Your task to perform on an android device: open app "Adobe Express: Graphic Design" (install if not already installed) and enter user name: "deliveries@gmail.com" and password: "regimentation" Image 0: 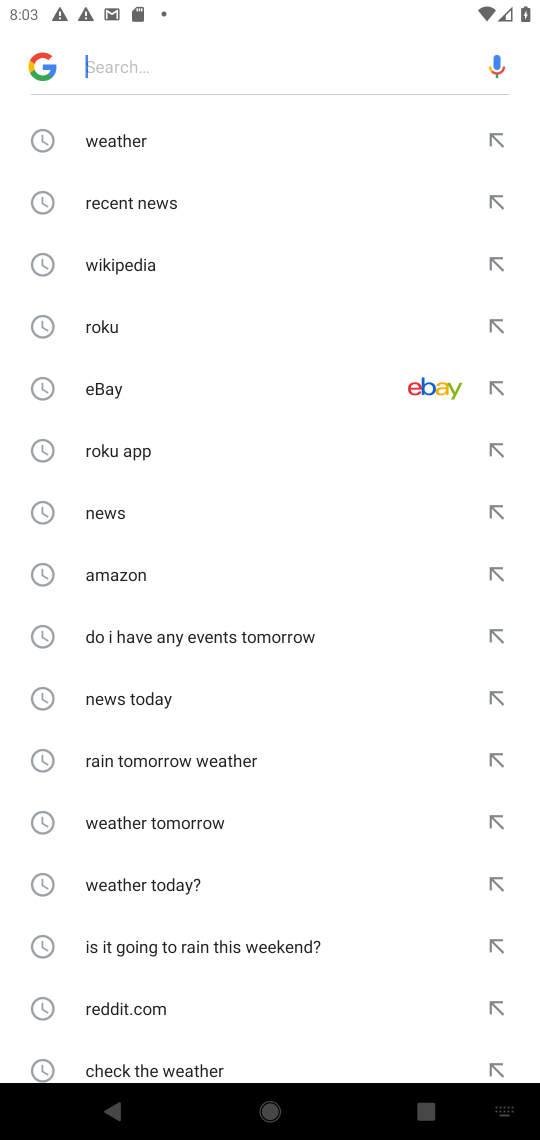
Step 0: press home button
Your task to perform on an android device: open app "Adobe Express: Graphic Design" (install if not already installed) and enter user name: "deliveries@gmail.com" and password: "regimentation" Image 1: 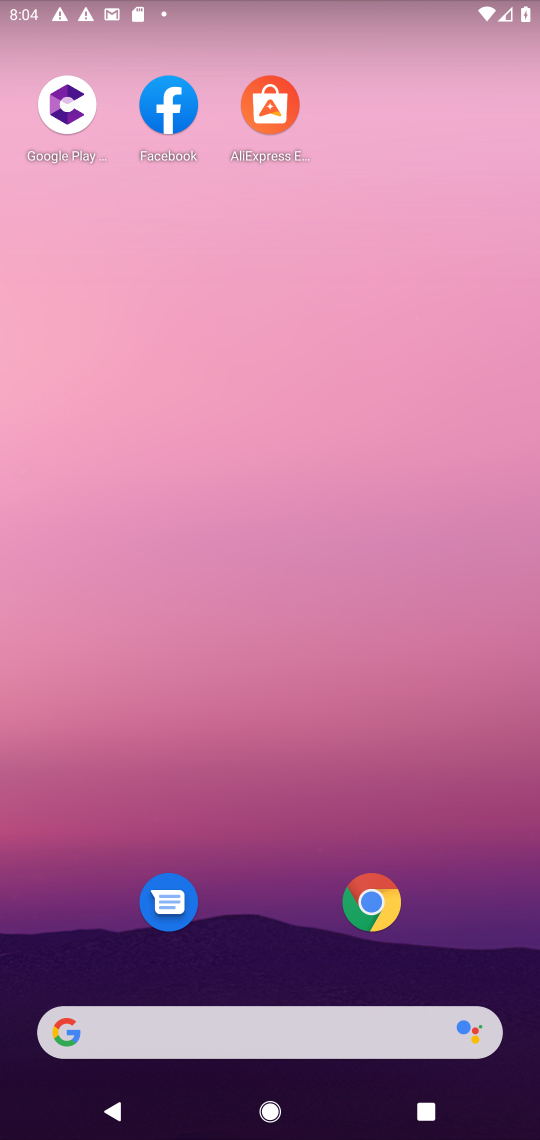
Step 1: drag from (308, 477) to (315, 287)
Your task to perform on an android device: open app "Adobe Express: Graphic Design" (install if not already installed) and enter user name: "deliveries@gmail.com" and password: "regimentation" Image 2: 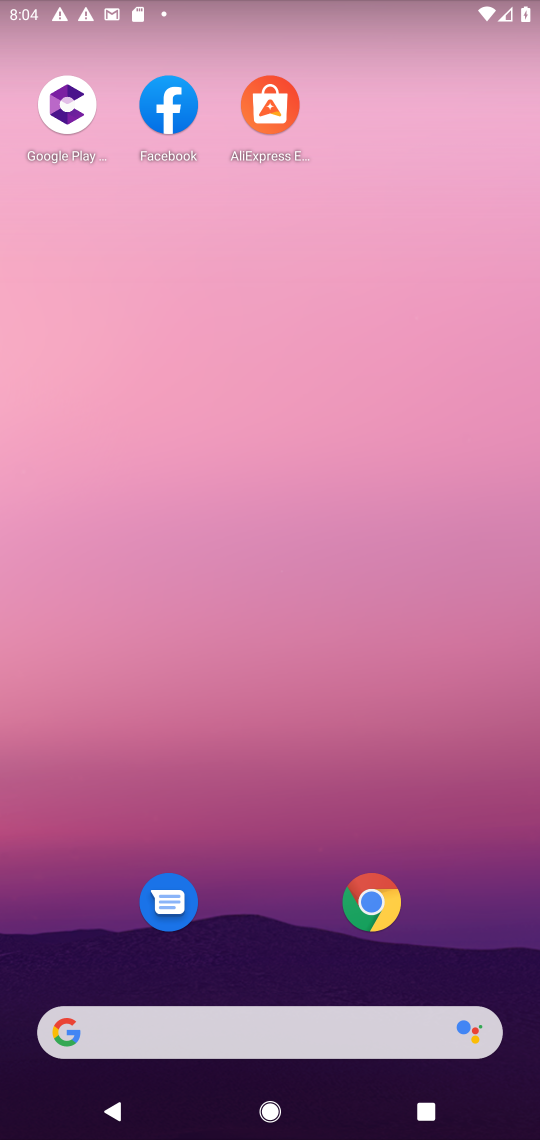
Step 2: drag from (272, 1046) to (242, 234)
Your task to perform on an android device: open app "Adobe Express: Graphic Design" (install if not already installed) and enter user name: "deliveries@gmail.com" and password: "regimentation" Image 3: 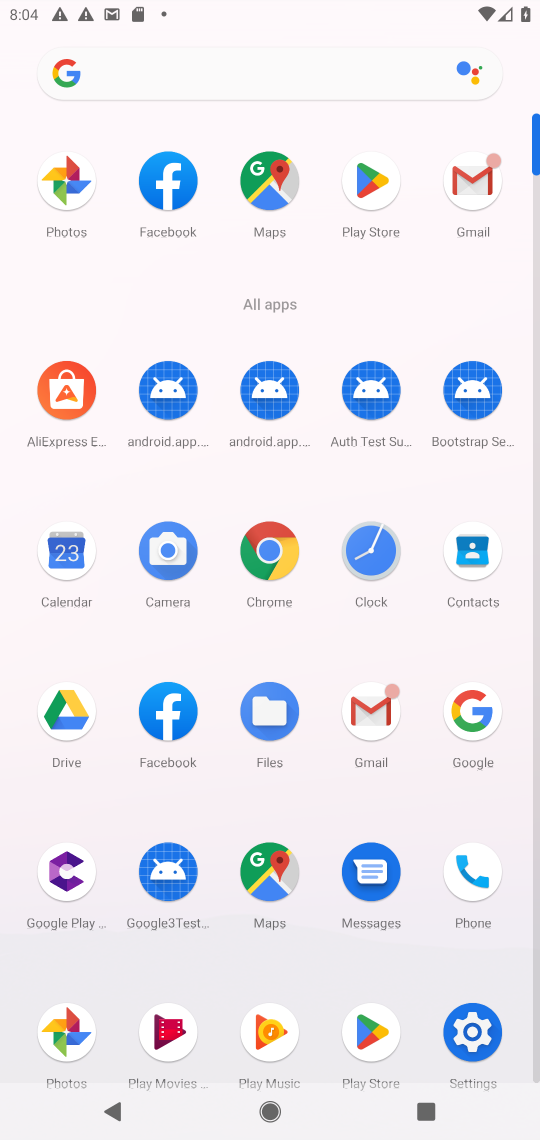
Step 3: click (373, 214)
Your task to perform on an android device: open app "Adobe Express: Graphic Design" (install if not already installed) and enter user name: "deliveries@gmail.com" and password: "regimentation" Image 4: 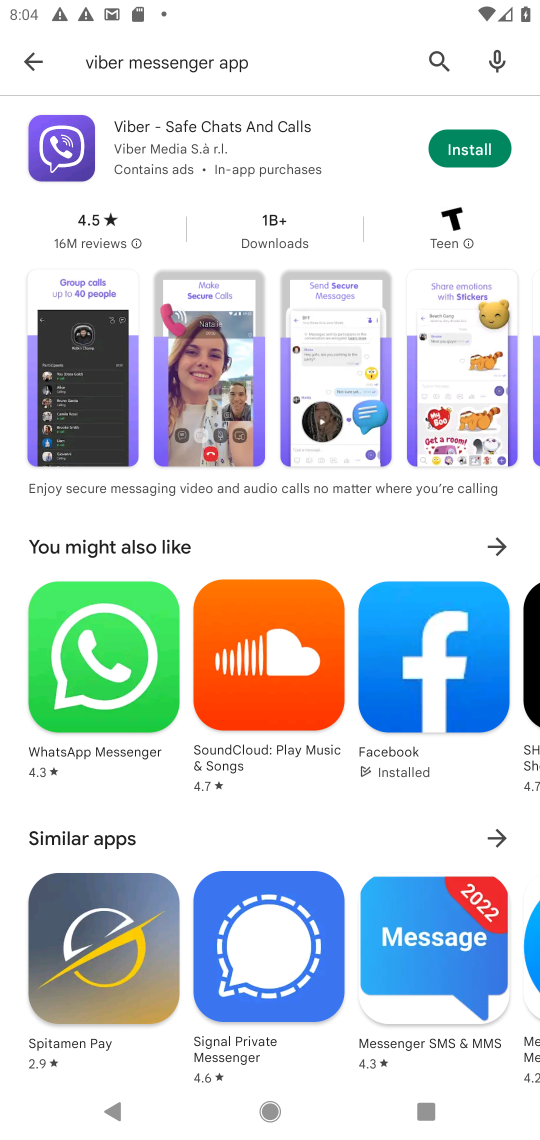
Step 4: click (440, 61)
Your task to perform on an android device: open app "Adobe Express: Graphic Design" (install if not already installed) and enter user name: "deliveries@gmail.com" and password: "regimentation" Image 5: 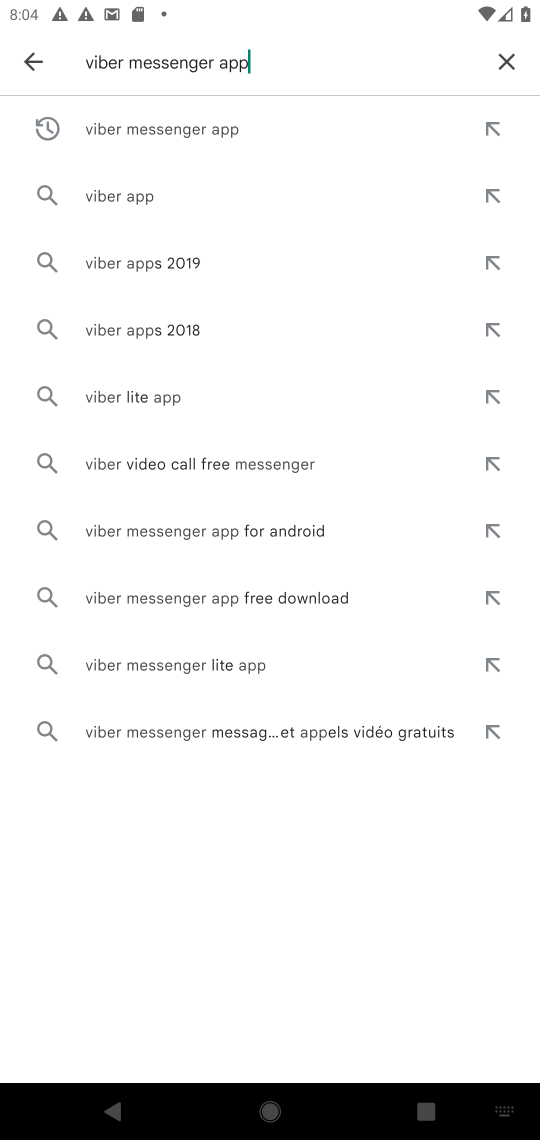
Step 5: click (505, 56)
Your task to perform on an android device: open app "Adobe Express: Graphic Design" (install if not already installed) and enter user name: "deliveries@gmail.com" and password: "regimentation" Image 6: 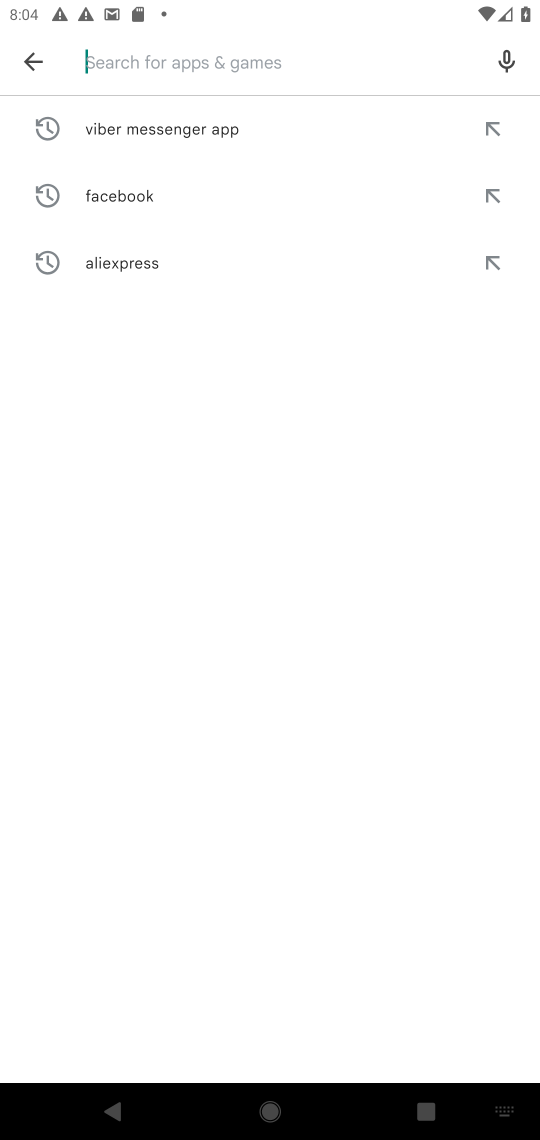
Step 6: click (266, 69)
Your task to perform on an android device: open app "Adobe Express: Graphic Design" (install if not already installed) and enter user name: "deliveries@gmail.com" and password: "regimentation" Image 7: 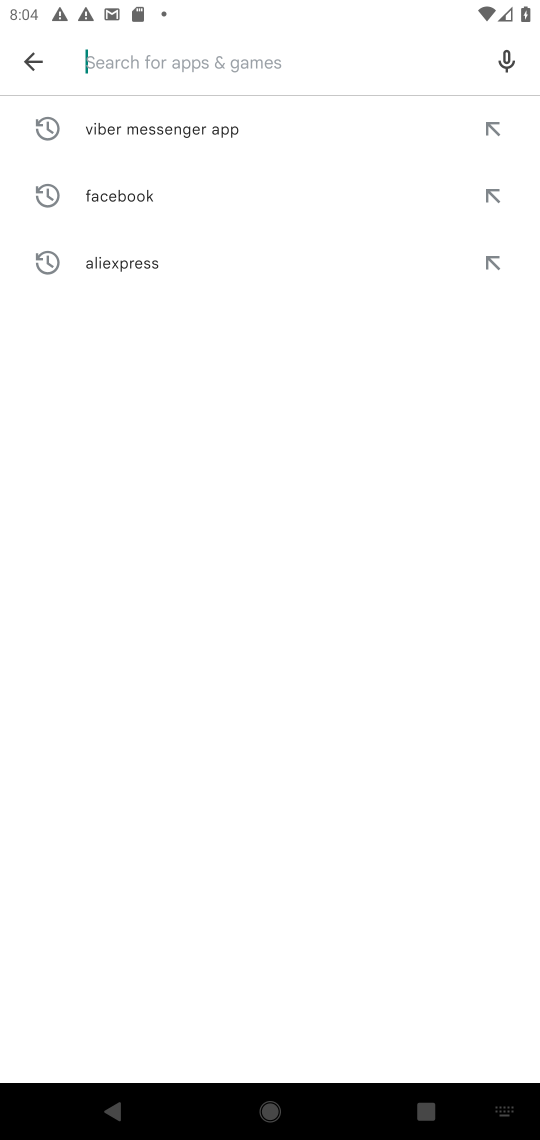
Step 7: type "adobe express"
Your task to perform on an android device: open app "Adobe Express: Graphic Design" (install if not already installed) and enter user name: "deliveries@gmail.com" and password: "regimentation" Image 8: 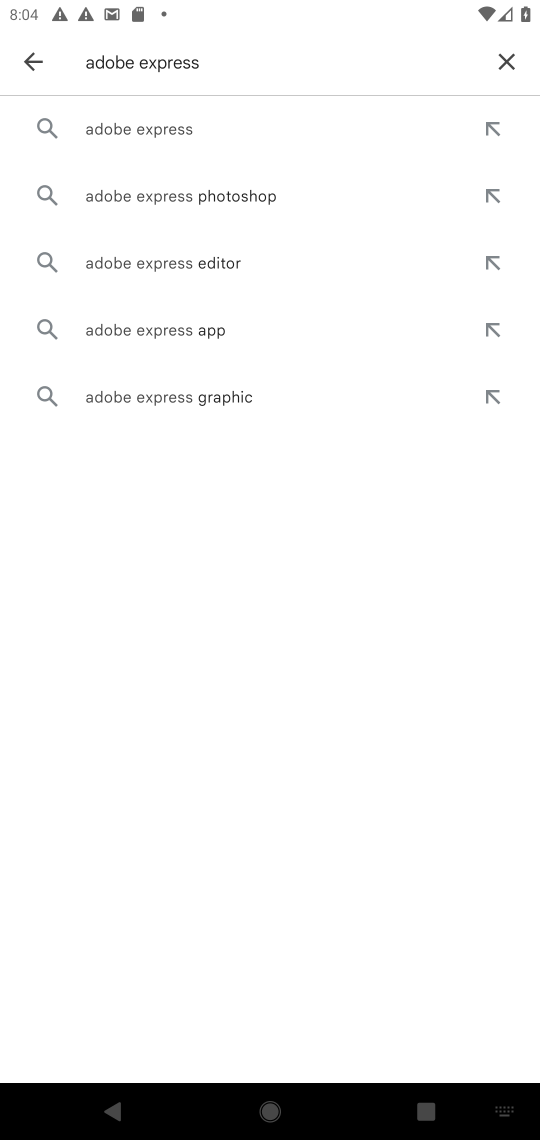
Step 8: click (161, 130)
Your task to perform on an android device: open app "Adobe Express: Graphic Design" (install if not already installed) and enter user name: "deliveries@gmail.com" and password: "regimentation" Image 9: 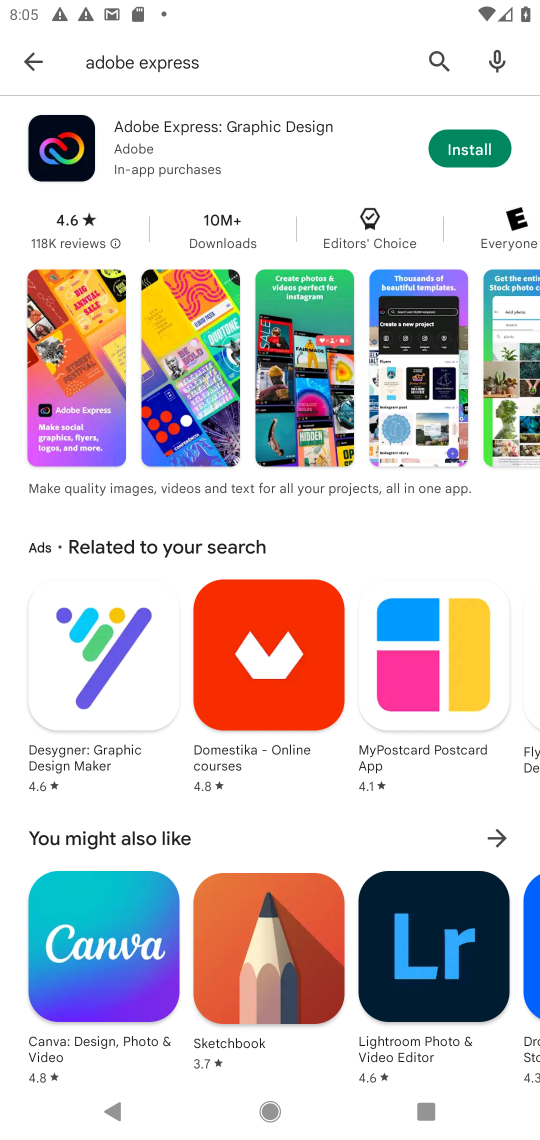
Step 9: click (484, 162)
Your task to perform on an android device: open app "Adobe Express: Graphic Design" (install if not already installed) and enter user name: "deliveries@gmail.com" and password: "regimentation" Image 10: 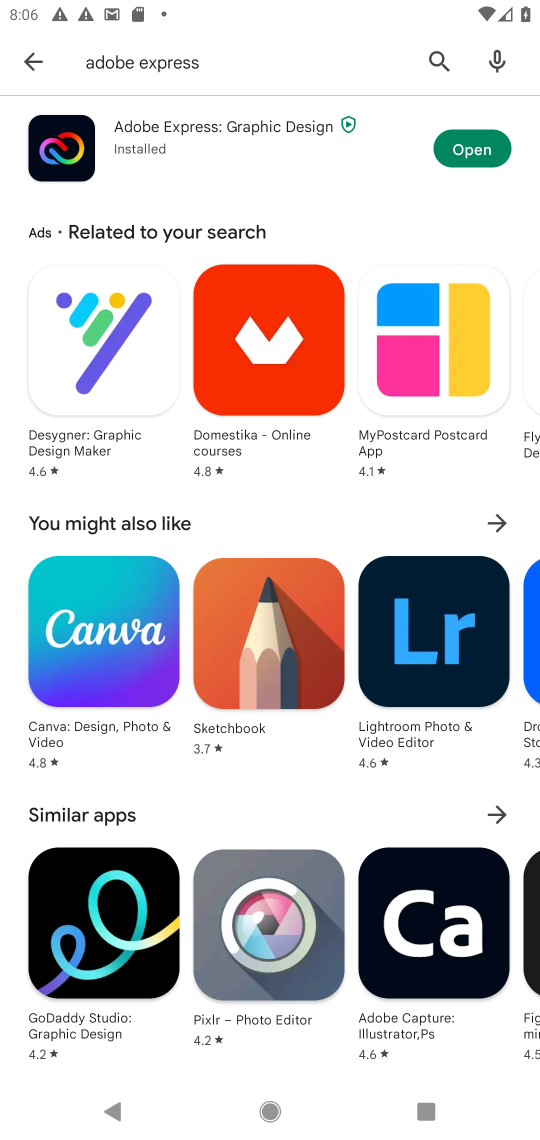
Step 10: click (456, 157)
Your task to perform on an android device: open app "Adobe Express: Graphic Design" (install if not already installed) and enter user name: "deliveries@gmail.com" and password: "regimentation" Image 11: 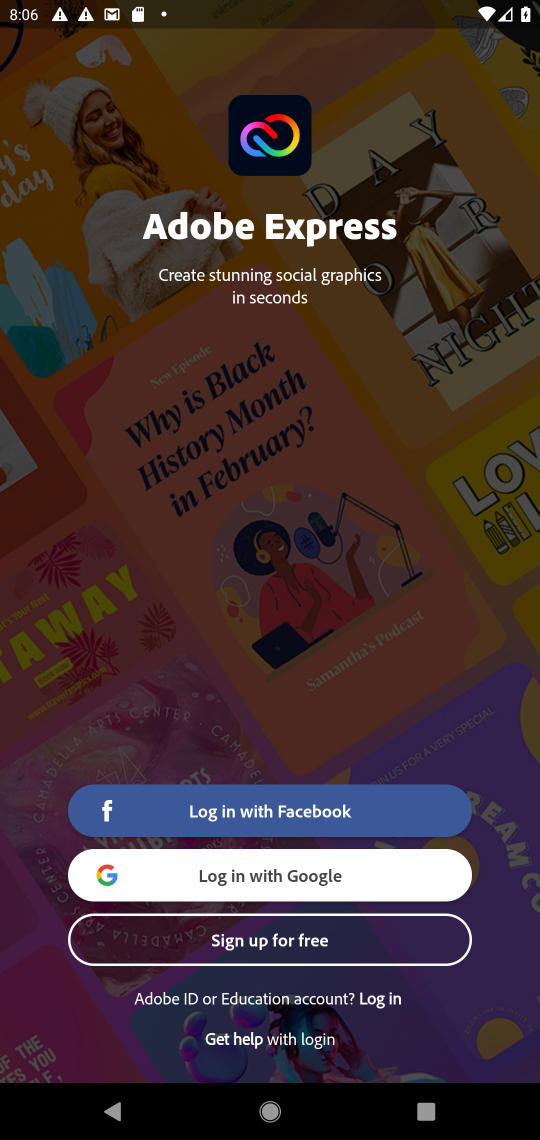
Step 11: click (376, 1000)
Your task to perform on an android device: open app "Adobe Express: Graphic Design" (install if not already installed) and enter user name: "deliveries@gmail.com" and password: "regimentation" Image 12: 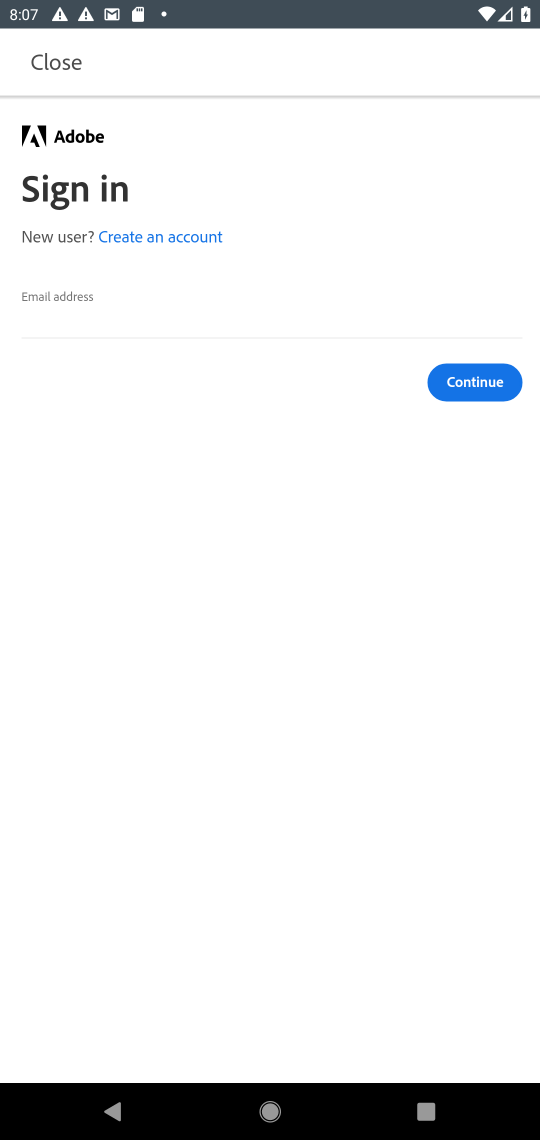
Step 12: click (170, 303)
Your task to perform on an android device: open app "Adobe Express: Graphic Design" (install if not already installed) and enter user name: "deliveries@gmail.com" and password: "regimentation" Image 13: 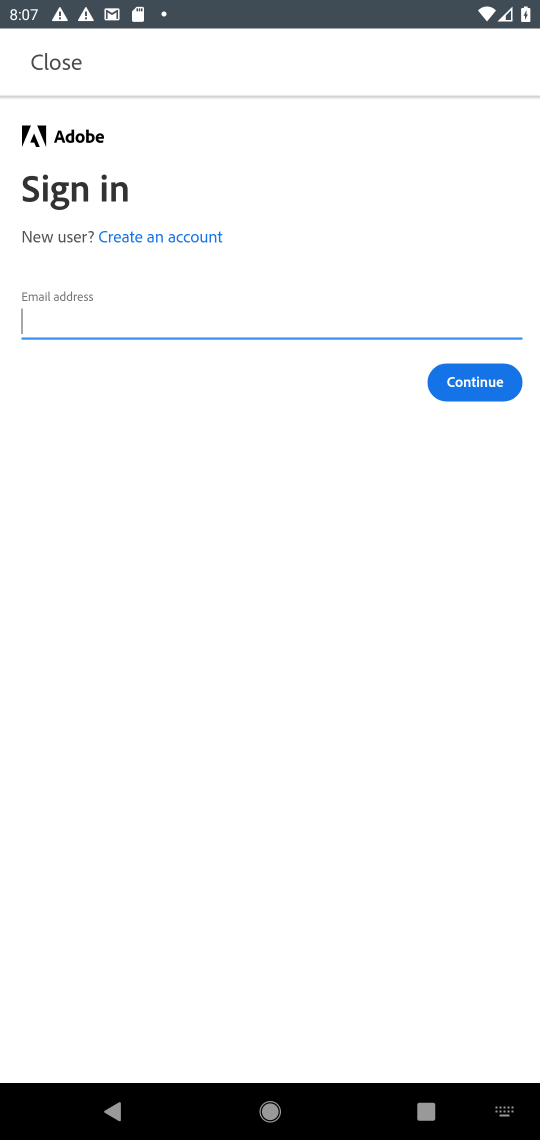
Step 13: type "deliveries@gmail.com"
Your task to perform on an android device: open app "Adobe Express: Graphic Design" (install if not already installed) and enter user name: "deliveries@gmail.com" and password: "regimentation" Image 14: 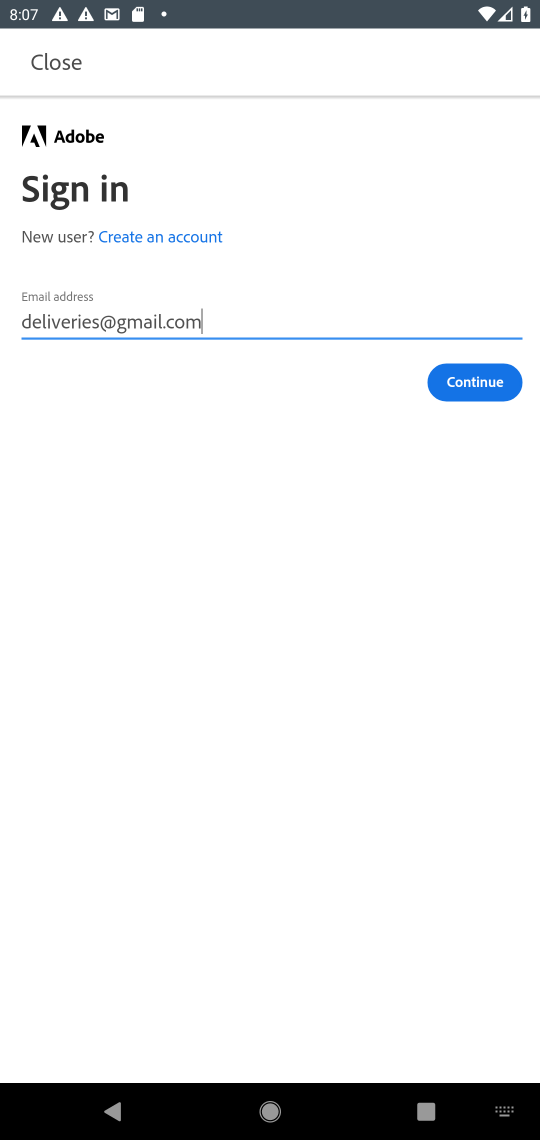
Step 14: click (471, 380)
Your task to perform on an android device: open app "Adobe Express: Graphic Design" (install if not already installed) and enter user name: "deliveries@gmail.com" and password: "regimentation" Image 15: 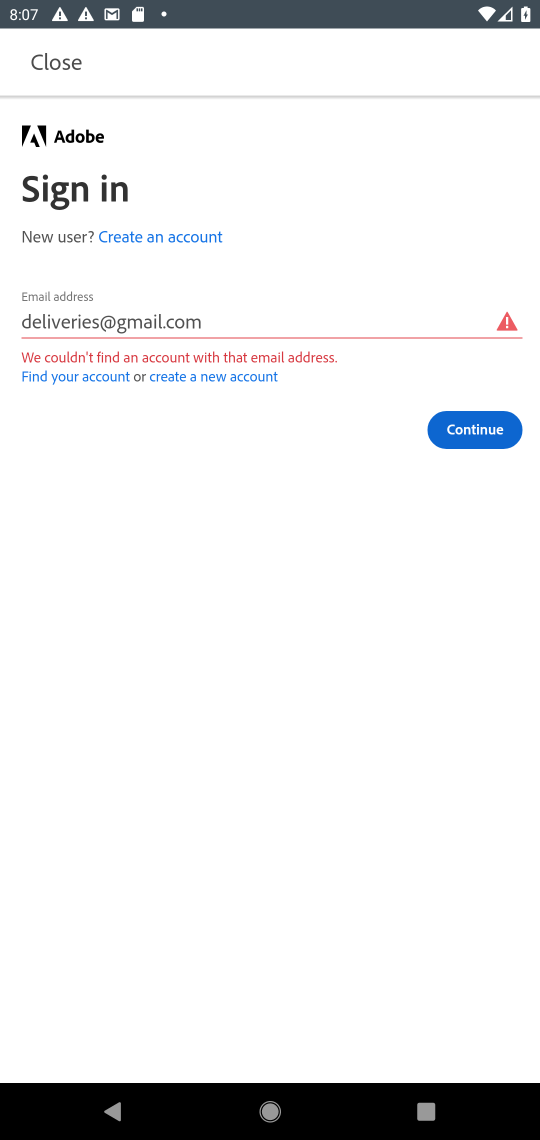
Step 15: task complete